Your task to perform on an android device: toggle notification dots Image 0: 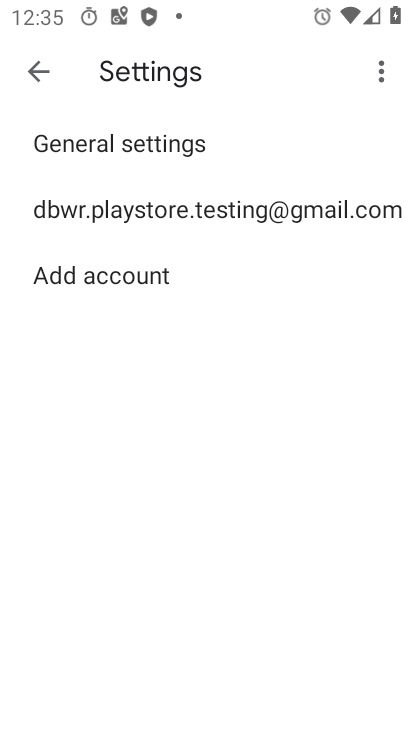
Step 0: press home button
Your task to perform on an android device: toggle notification dots Image 1: 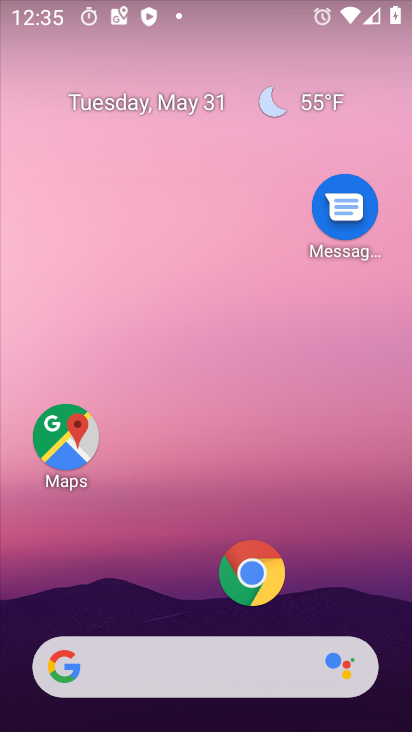
Step 1: drag from (191, 611) to (199, 62)
Your task to perform on an android device: toggle notification dots Image 2: 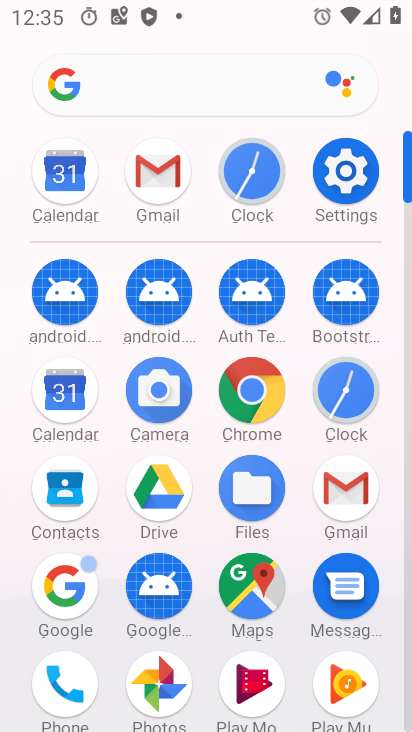
Step 2: click (338, 174)
Your task to perform on an android device: toggle notification dots Image 3: 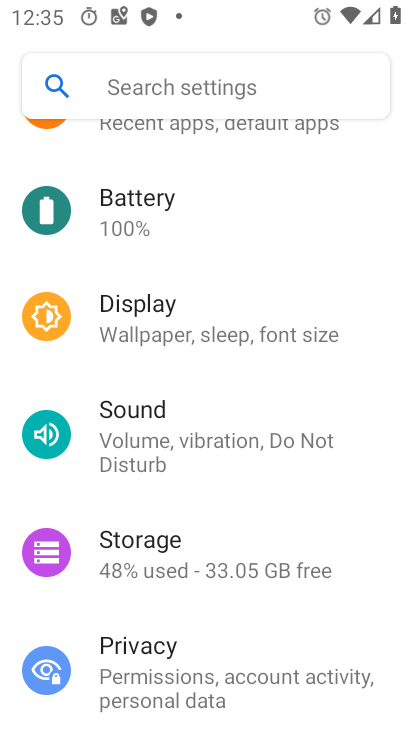
Step 3: drag from (179, 550) to (179, 97)
Your task to perform on an android device: toggle notification dots Image 4: 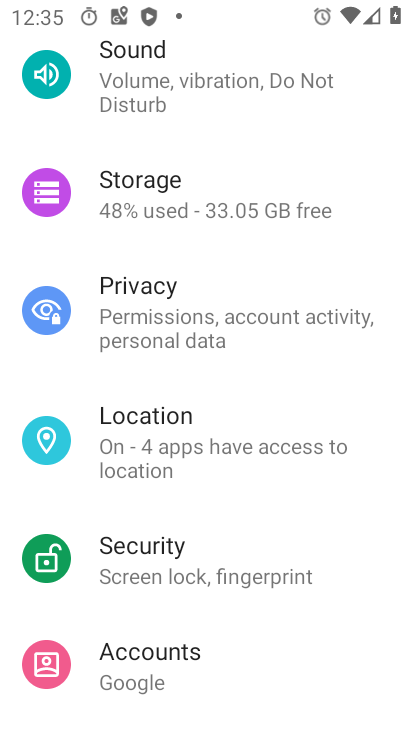
Step 4: drag from (192, 588) to (193, 101)
Your task to perform on an android device: toggle notification dots Image 5: 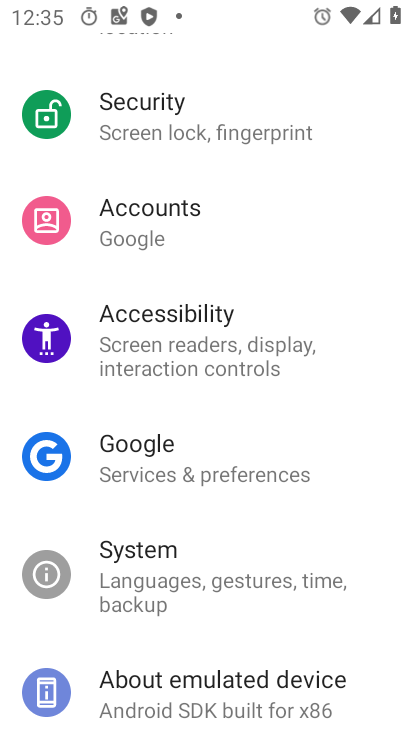
Step 5: drag from (230, 42) to (283, 435)
Your task to perform on an android device: toggle notification dots Image 6: 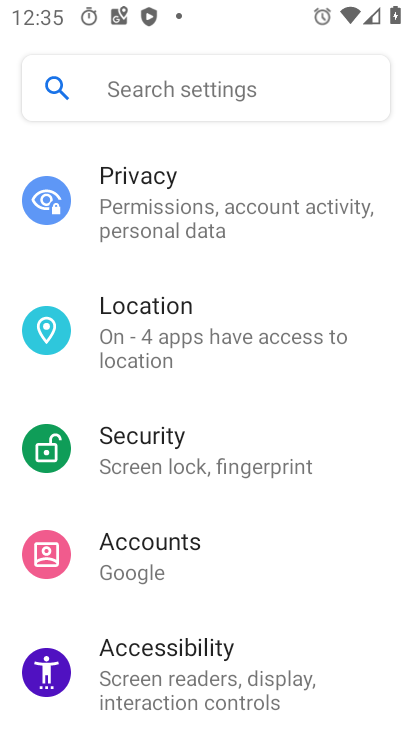
Step 6: drag from (246, 237) to (254, 714)
Your task to perform on an android device: toggle notification dots Image 7: 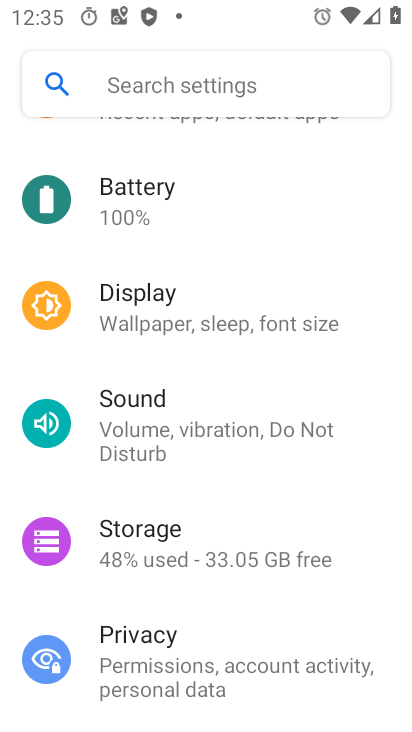
Step 7: drag from (254, 264) to (228, 693)
Your task to perform on an android device: toggle notification dots Image 8: 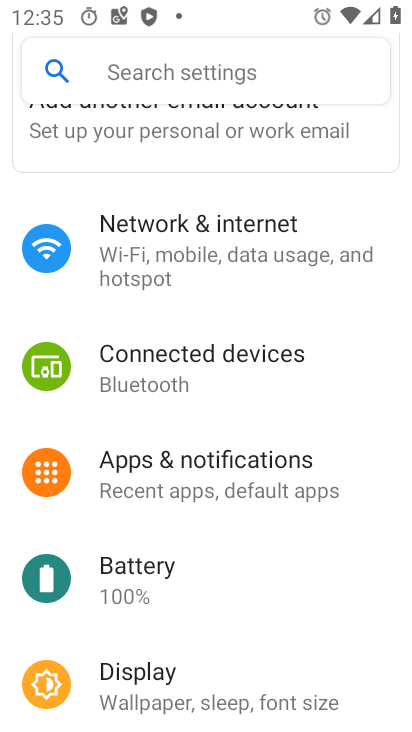
Step 8: click (194, 468)
Your task to perform on an android device: toggle notification dots Image 9: 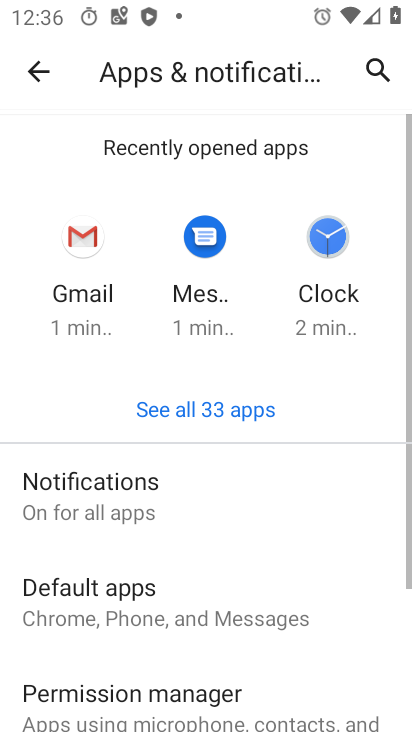
Step 9: click (177, 494)
Your task to perform on an android device: toggle notification dots Image 10: 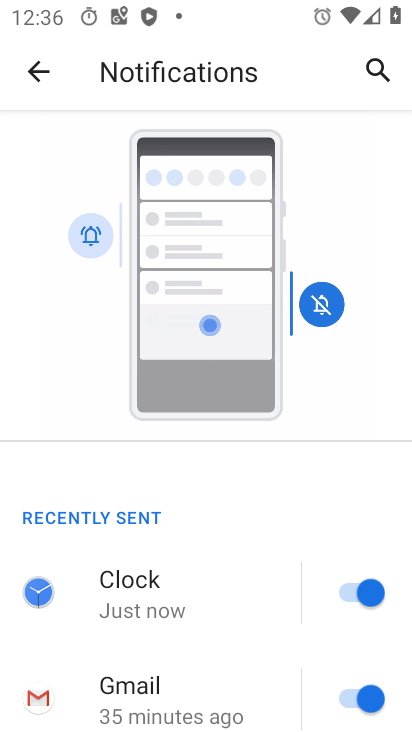
Step 10: drag from (136, 634) to (265, 73)
Your task to perform on an android device: toggle notification dots Image 11: 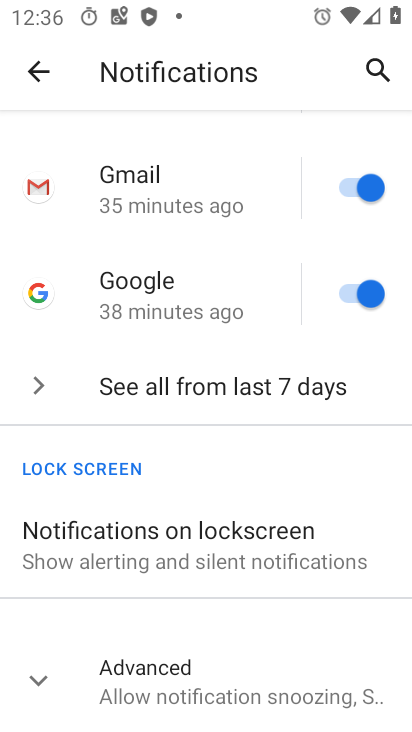
Step 11: click (123, 679)
Your task to perform on an android device: toggle notification dots Image 12: 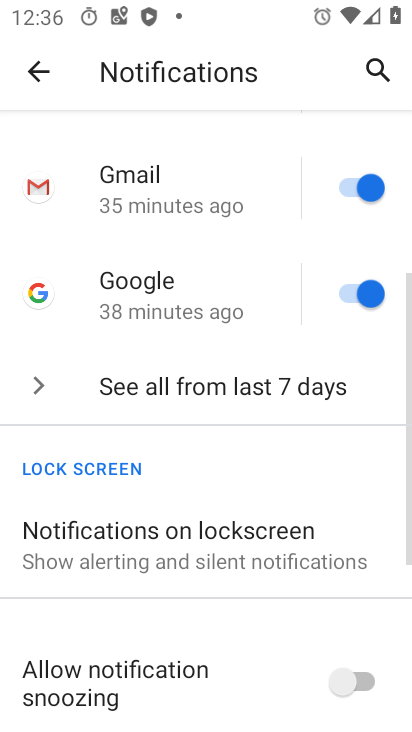
Step 12: drag from (124, 675) to (238, 128)
Your task to perform on an android device: toggle notification dots Image 13: 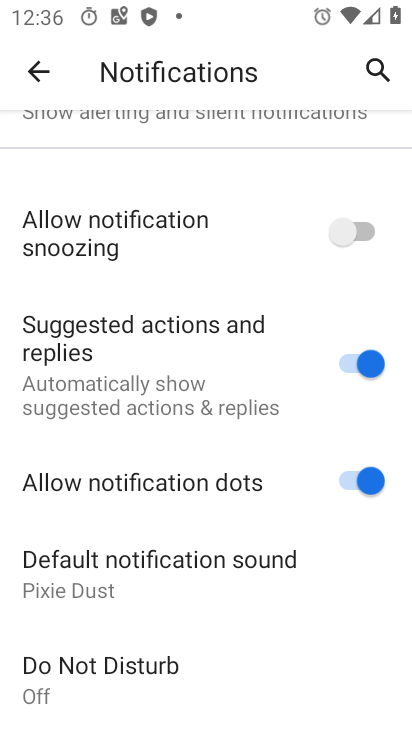
Step 13: click (362, 482)
Your task to perform on an android device: toggle notification dots Image 14: 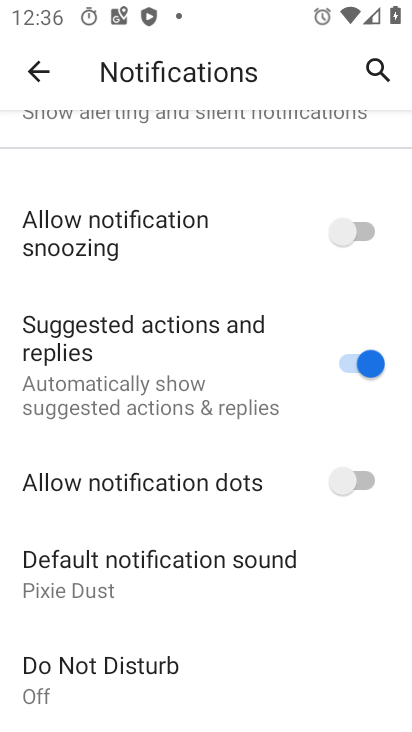
Step 14: task complete